Your task to perform on an android device: Search for "dell xps" on newegg.com, select the first entry, and add it to the cart. Image 0: 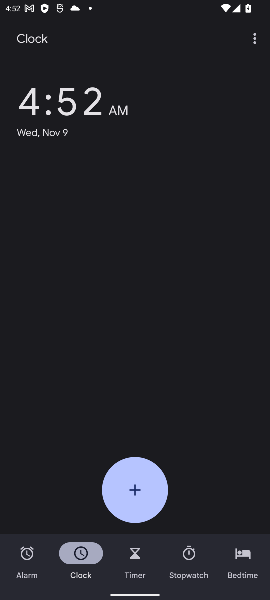
Step 0: press home button
Your task to perform on an android device: Search for "dell xps" on newegg.com, select the first entry, and add it to the cart. Image 1: 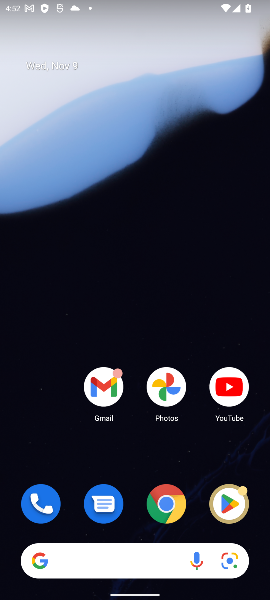
Step 1: click (119, 560)
Your task to perform on an android device: Search for "dell xps" on newegg.com, select the first entry, and add it to the cart. Image 2: 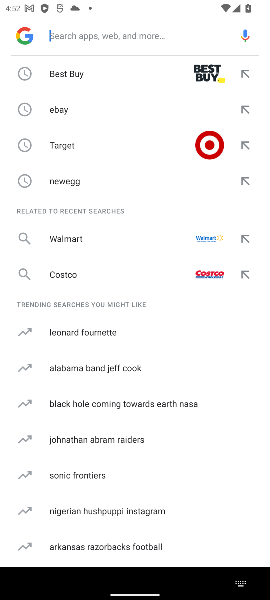
Step 2: click (57, 185)
Your task to perform on an android device: Search for "dell xps" on newegg.com, select the first entry, and add it to the cart. Image 3: 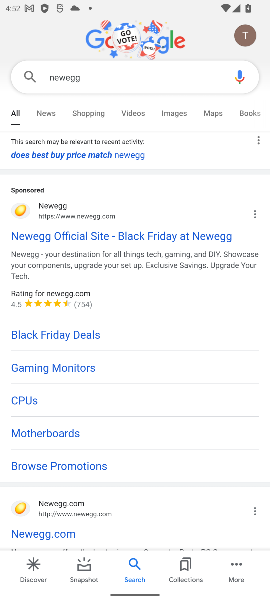
Step 3: click (52, 209)
Your task to perform on an android device: Search for "dell xps" on newegg.com, select the first entry, and add it to the cart. Image 4: 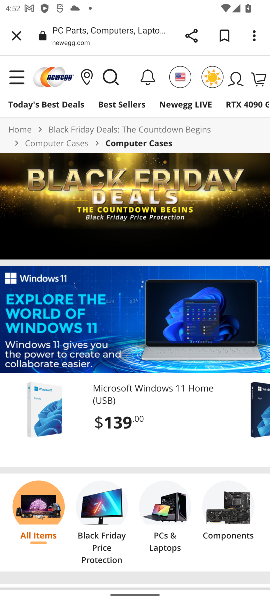
Step 4: click (110, 77)
Your task to perform on an android device: Search for "dell xps" on newegg.com, select the first entry, and add it to the cart. Image 5: 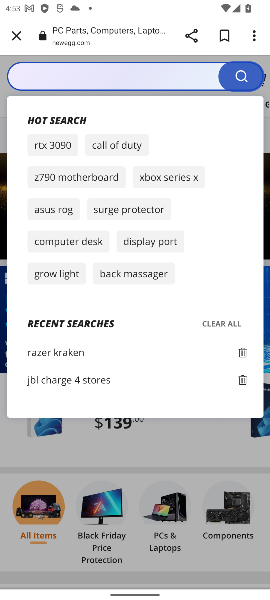
Step 5: click (108, 77)
Your task to perform on an android device: Search for "dell xps" on newegg.com, select the first entry, and add it to the cart. Image 6: 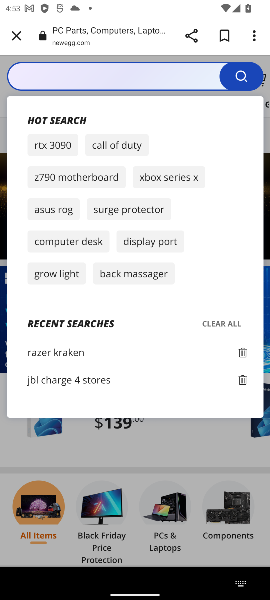
Step 6: type "dell xps"
Your task to perform on an android device: Search for "dell xps" on newegg.com, select the first entry, and add it to the cart. Image 7: 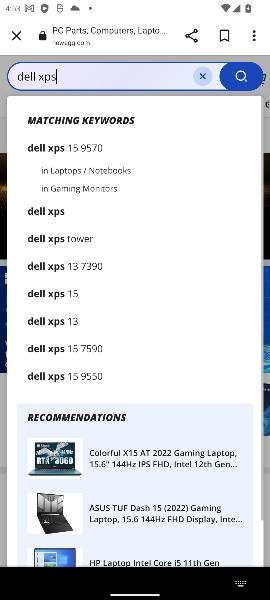
Step 7: click (243, 76)
Your task to perform on an android device: Search for "dell xps" on newegg.com, select the first entry, and add it to the cart. Image 8: 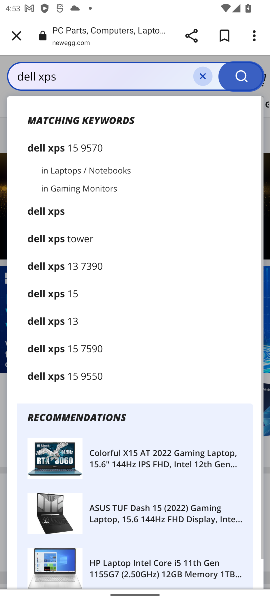
Step 8: click (234, 78)
Your task to perform on an android device: Search for "dell xps" on newegg.com, select the first entry, and add it to the cart. Image 9: 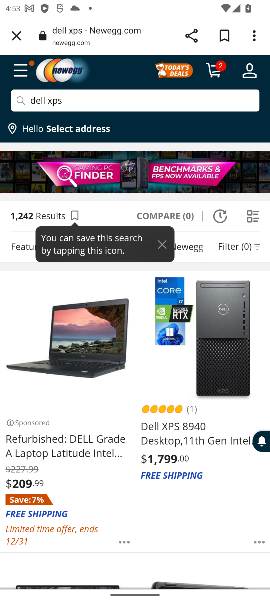
Step 9: click (59, 426)
Your task to perform on an android device: Search for "dell xps" on newegg.com, select the first entry, and add it to the cart. Image 10: 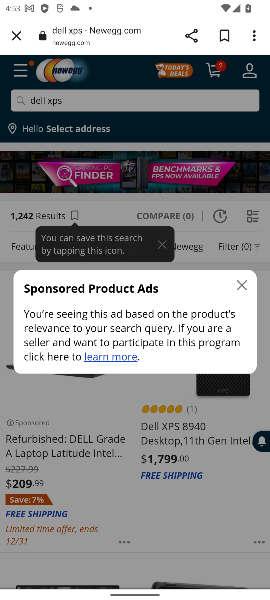
Step 10: click (248, 283)
Your task to perform on an android device: Search for "dell xps" on newegg.com, select the first entry, and add it to the cart. Image 11: 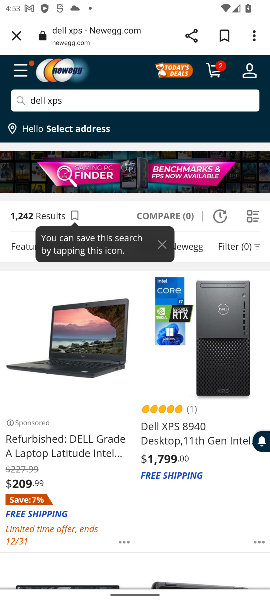
Step 11: click (69, 372)
Your task to perform on an android device: Search for "dell xps" on newegg.com, select the first entry, and add it to the cart. Image 12: 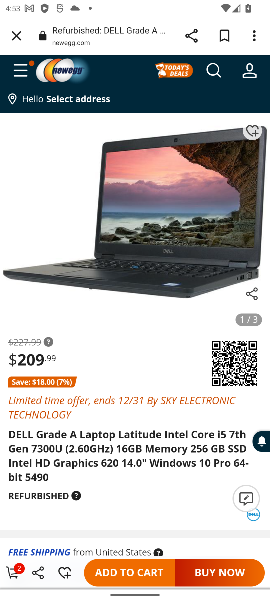
Step 12: click (110, 573)
Your task to perform on an android device: Search for "dell xps" on newegg.com, select the first entry, and add it to the cart. Image 13: 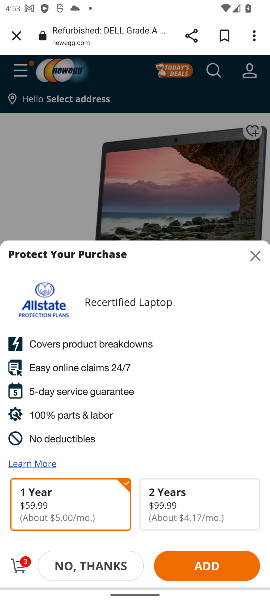
Step 13: click (58, 559)
Your task to perform on an android device: Search for "dell xps" on newegg.com, select the first entry, and add it to the cart. Image 14: 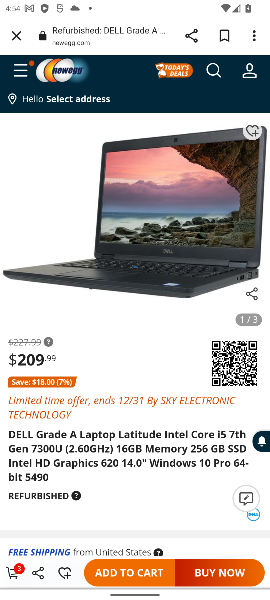
Step 14: task complete